Your task to perform on an android device: View the shopping cart on newegg. Image 0: 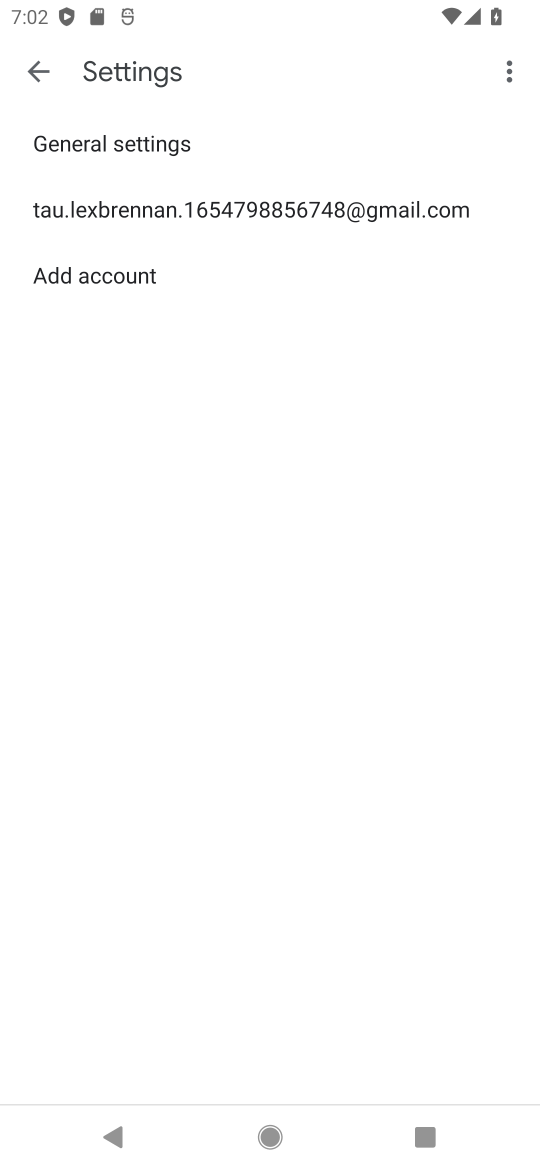
Step 0: press home button
Your task to perform on an android device: View the shopping cart on newegg. Image 1: 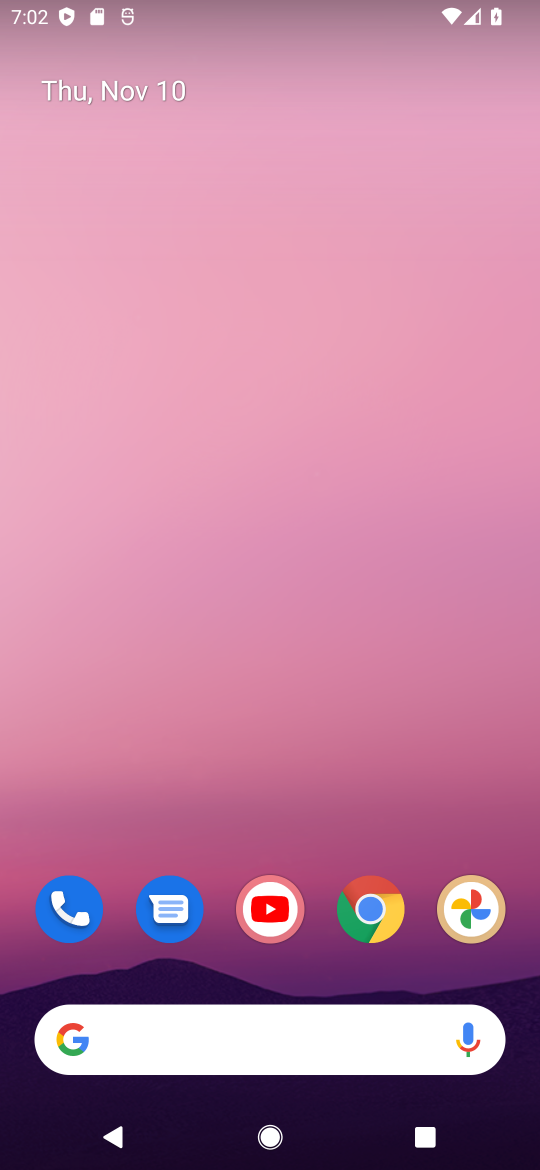
Step 1: drag from (204, 994) to (253, 179)
Your task to perform on an android device: View the shopping cart on newegg. Image 2: 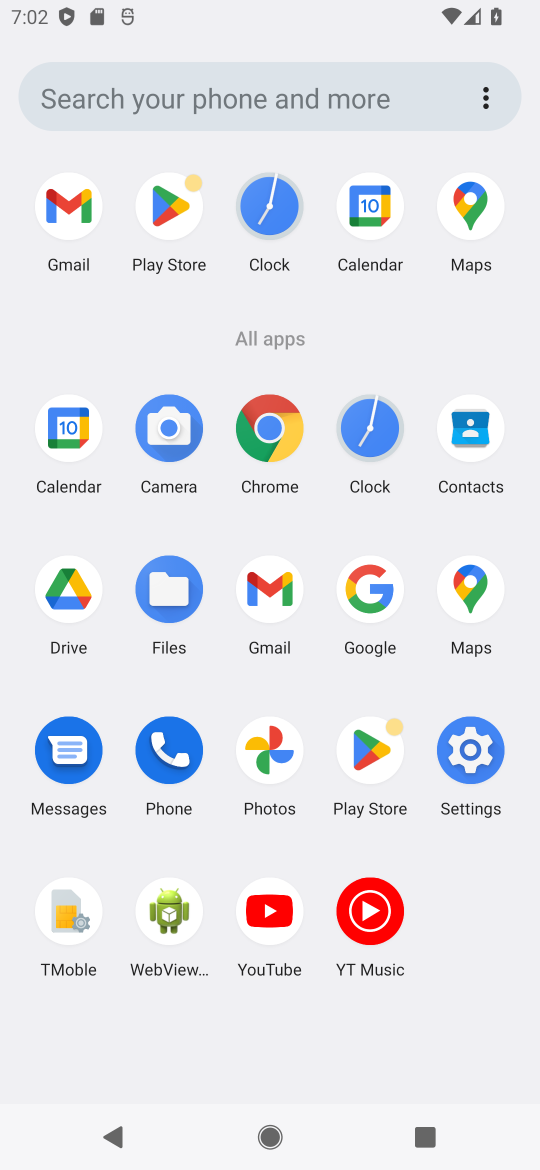
Step 2: click (376, 572)
Your task to perform on an android device: View the shopping cart on newegg. Image 3: 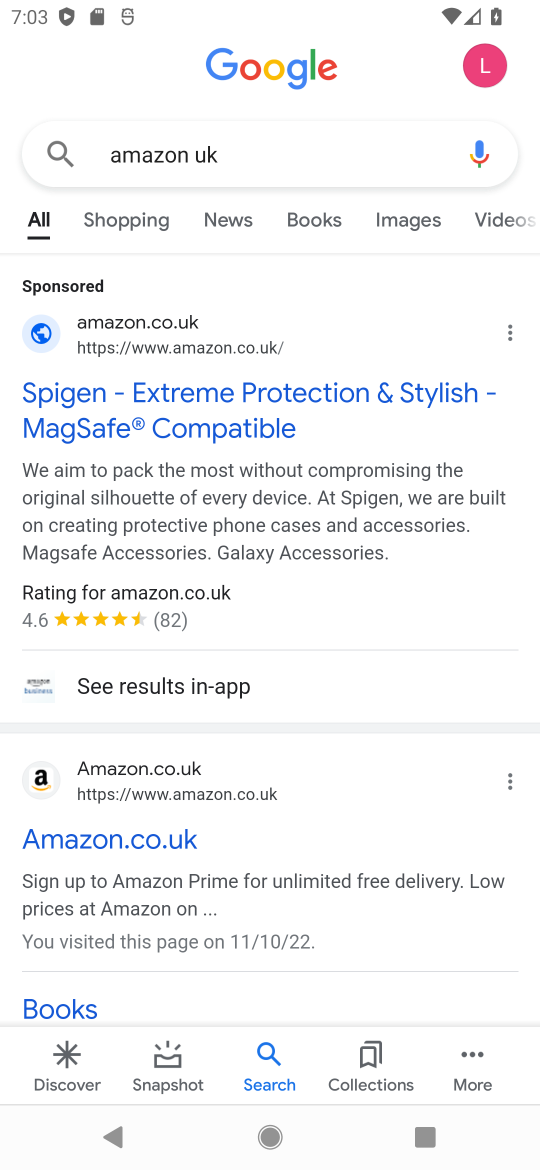
Step 3: click (284, 134)
Your task to perform on an android device: View the shopping cart on newegg. Image 4: 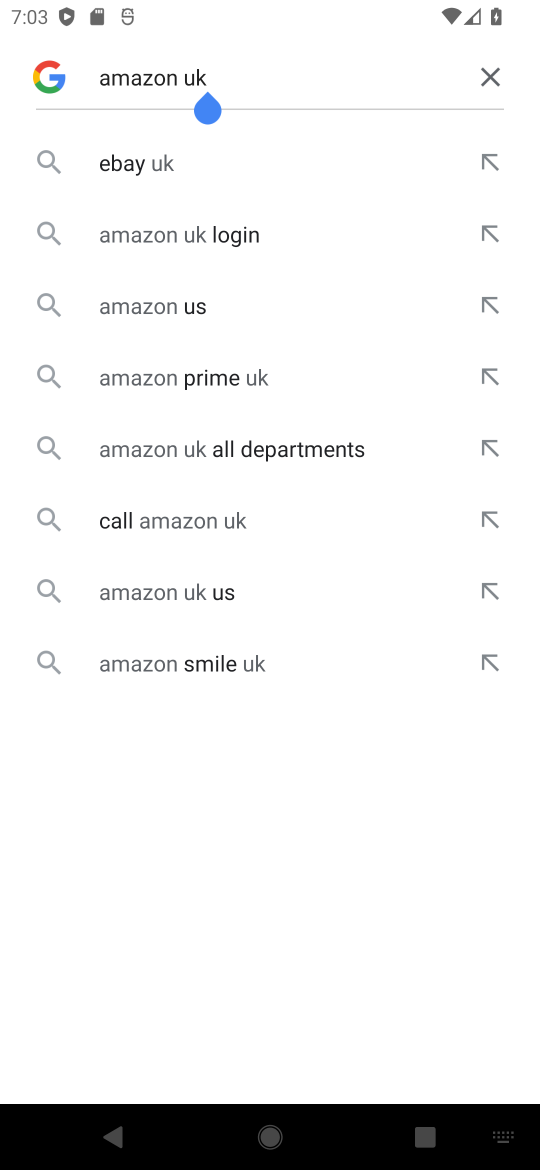
Step 4: click (495, 73)
Your task to perform on an android device: View the shopping cart on newegg. Image 5: 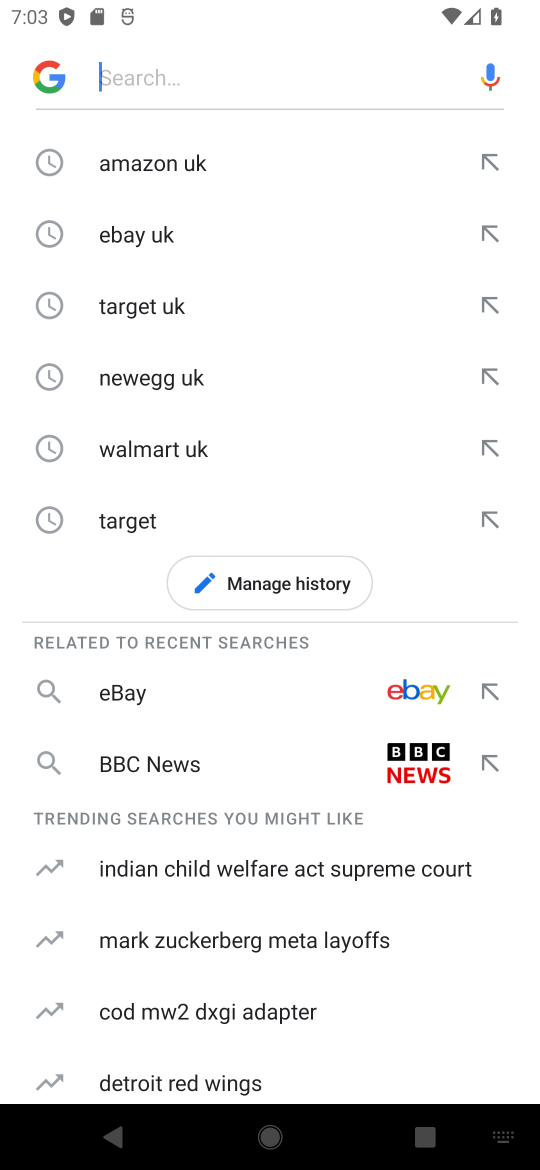
Step 5: click (252, 38)
Your task to perform on an android device: View the shopping cart on newegg. Image 6: 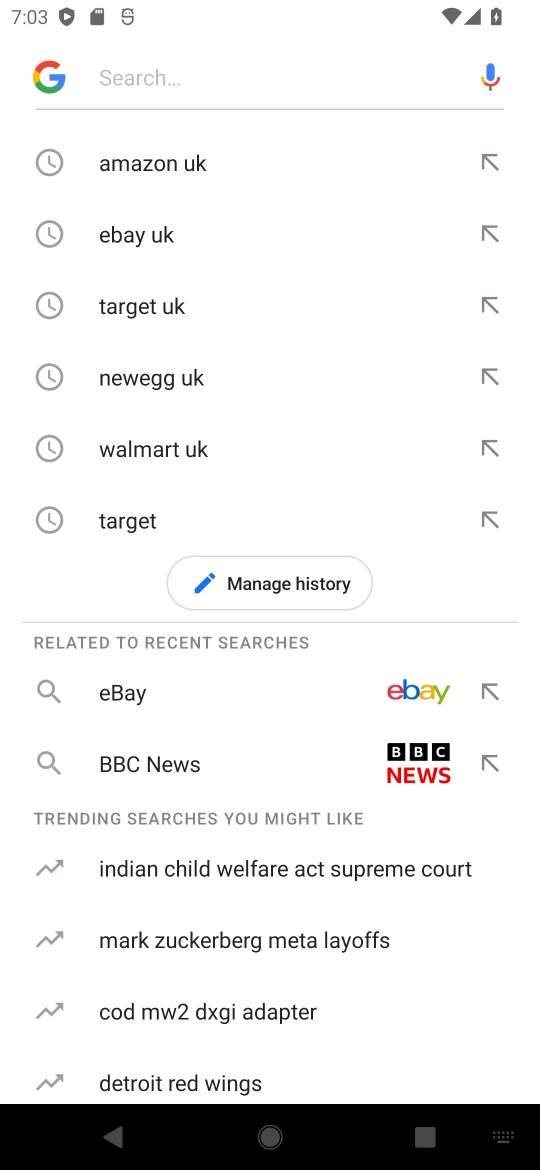
Step 6: type "newegg "
Your task to perform on an android device: View the shopping cart on newegg. Image 7: 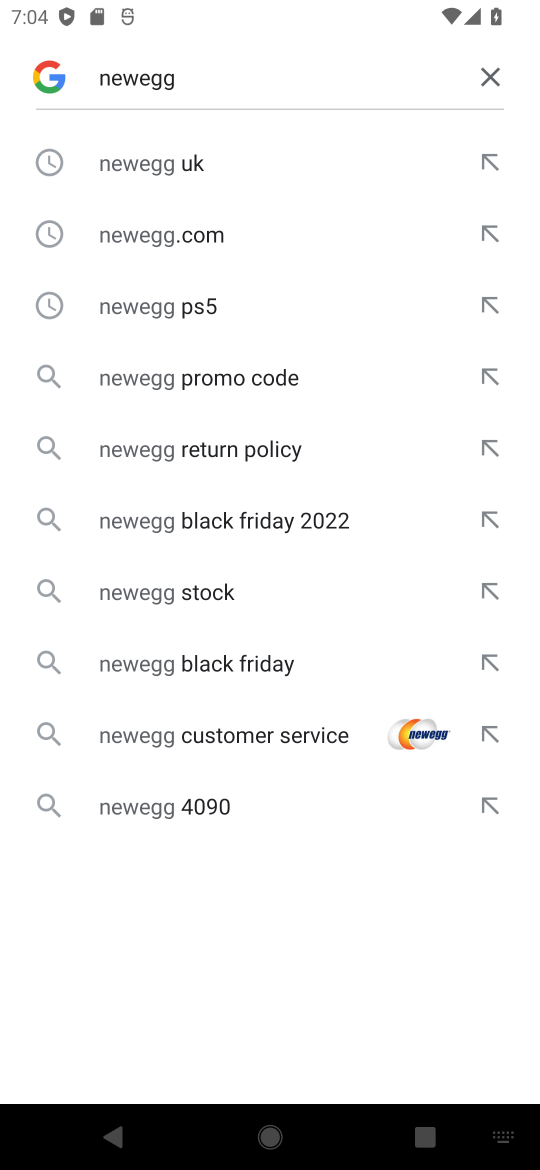
Step 7: click (156, 154)
Your task to perform on an android device: View the shopping cart on newegg. Image 8: 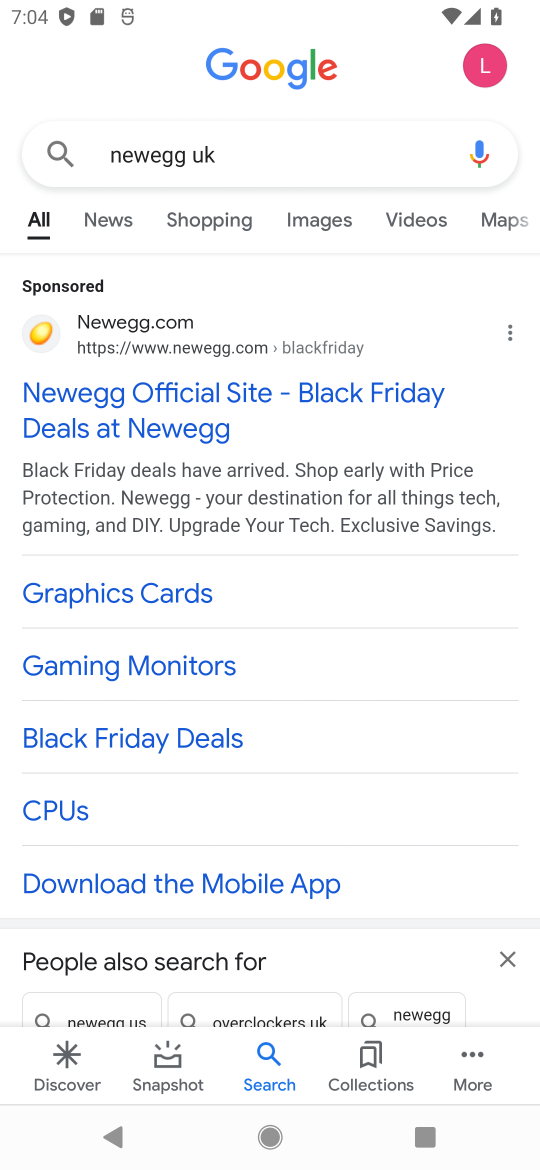
Step 8: click (49, 325)
Your task to perform on an android device: View the shopping cart on newegg. Image 9: 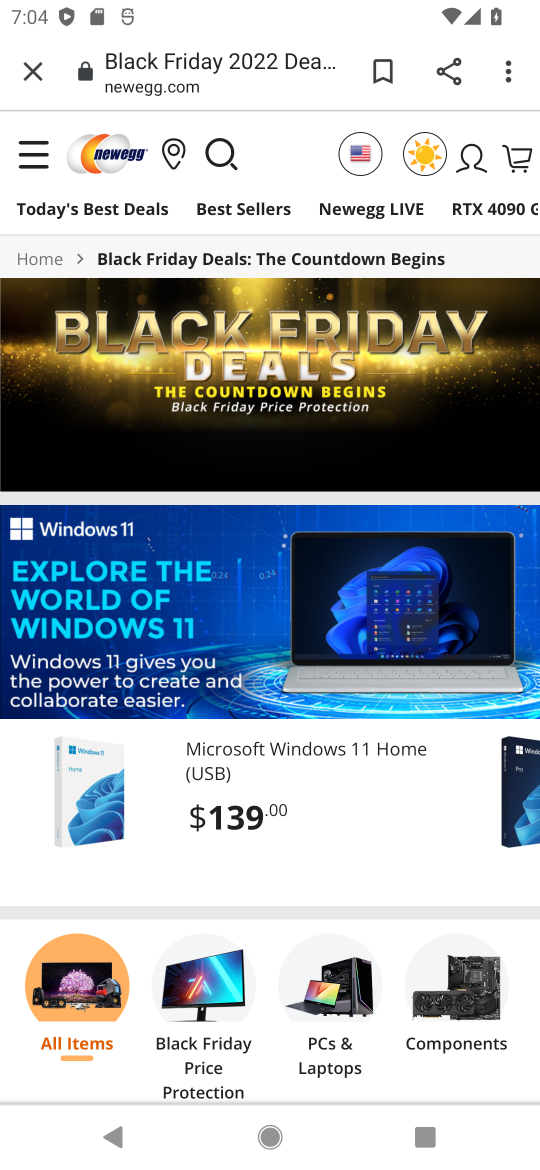
Step 9: click (507, 155)
Your task to perform on an android device: View the shopping cart on newegg. Image 10: 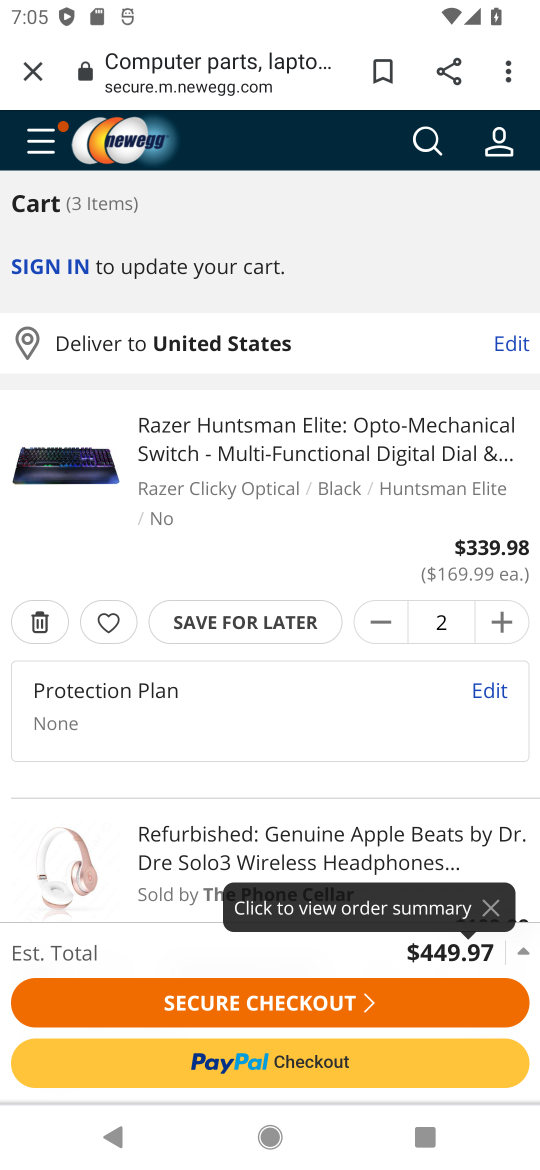
Step 10: task complete